Your task to perform on an android device: add a contact in the contacts app Image 0: 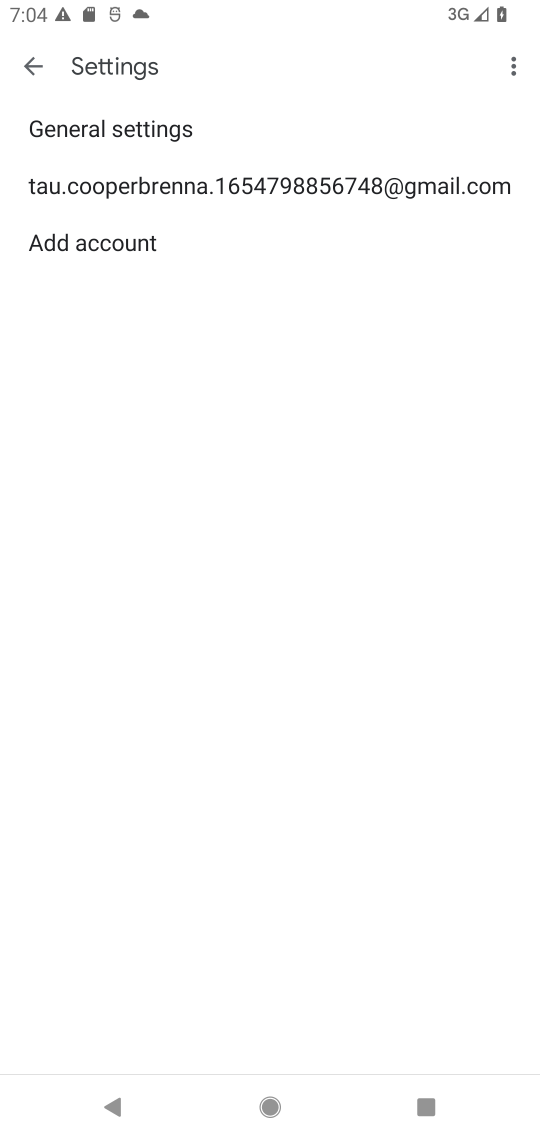
Step 0: press home button
Your task to perform on an android device: add a contact in the contacts app Image 1: 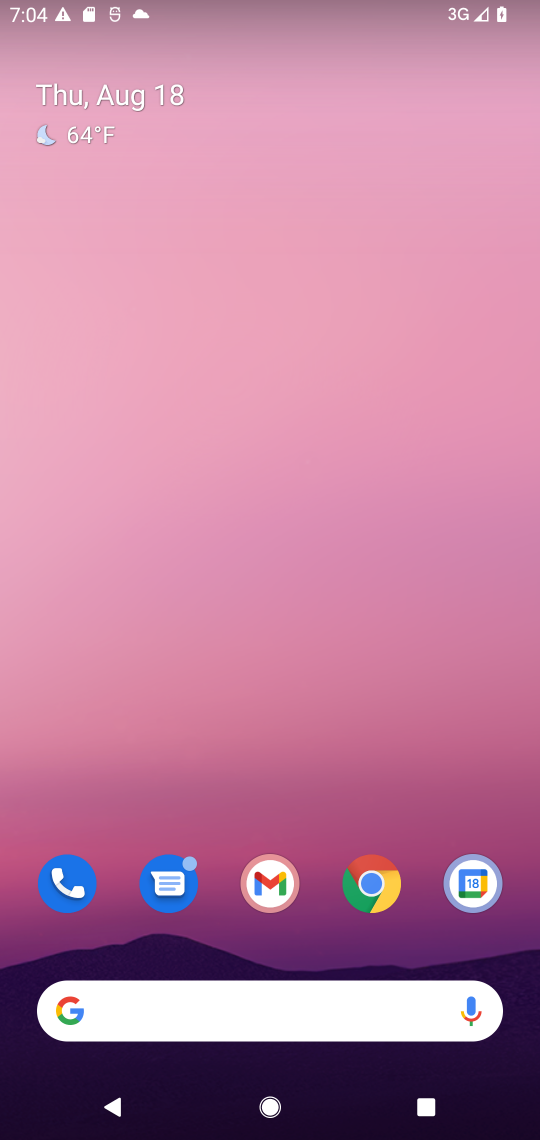
Step 1: click (68, 895)
Your task to perform on an android device: add a contact in the contacts app Image 2: 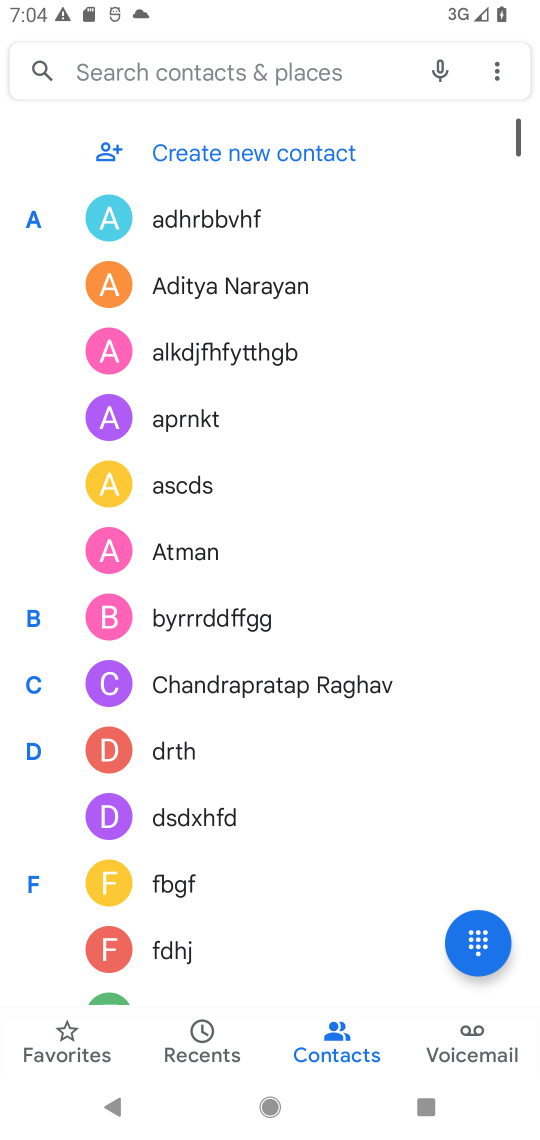
Step 2: click (177, 136)
Your task to perform on an android device: add a contact in the contacts app Image 3: 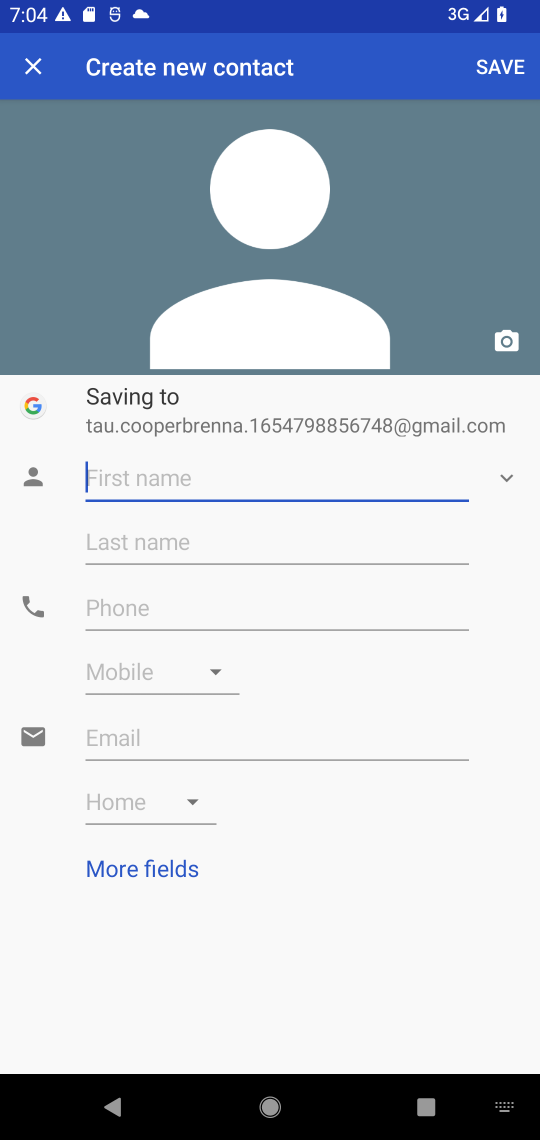
Step 3: type "dsbdf"
Your task to perform on an android device: add a contact in the contacts app Image 4: 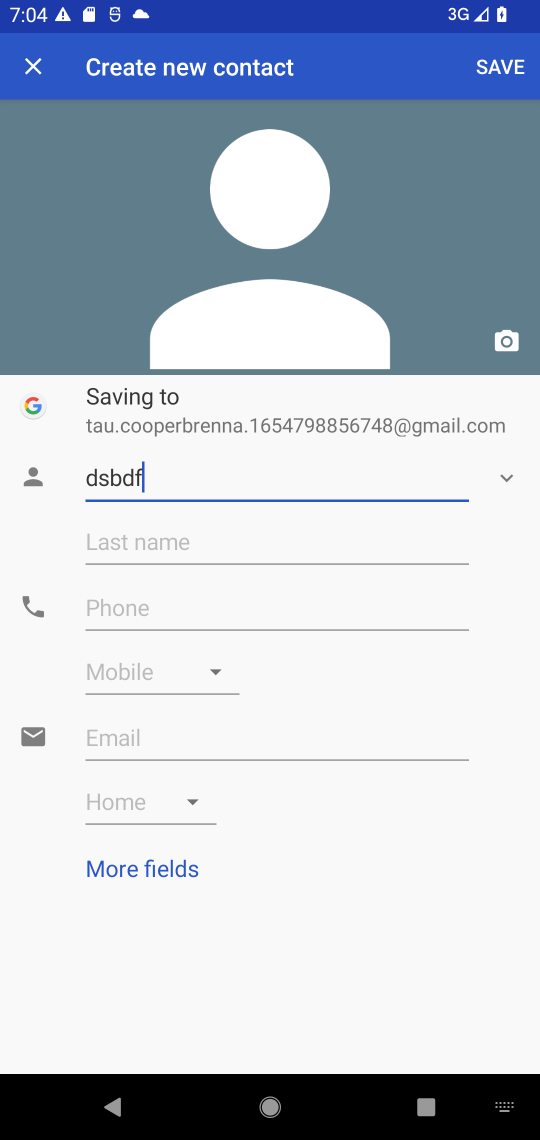
Step 4: click (499, 74)
Your task to perform on an android device: add a contact in the contacts app Image 5: 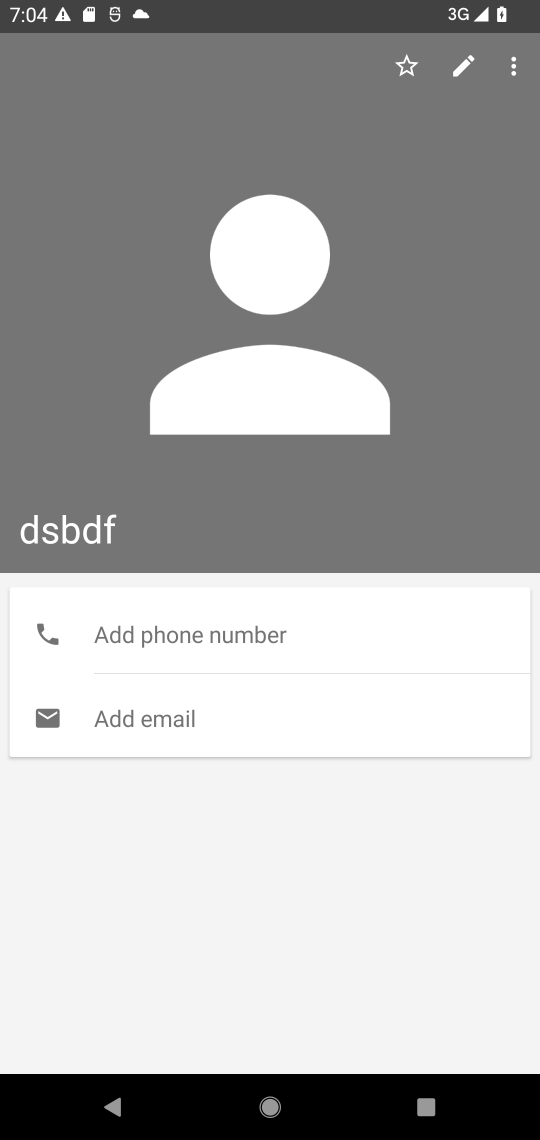
Step 5: task complete